Your task to perform on an android device: toggle notification dots Image 0: 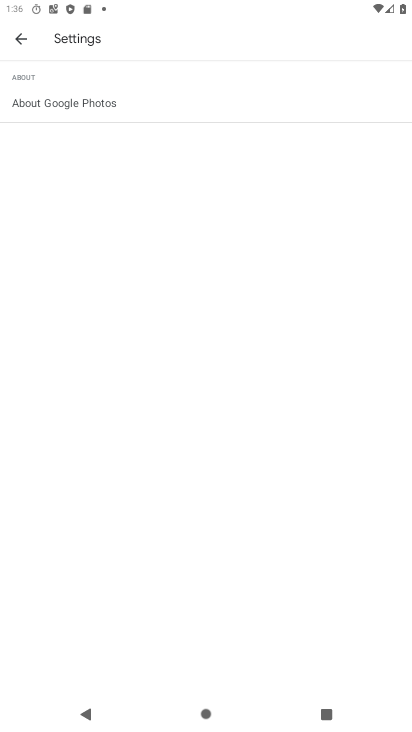
Step 0: press home button
Your task to perform on an android device: toggle notification dots Image 1: 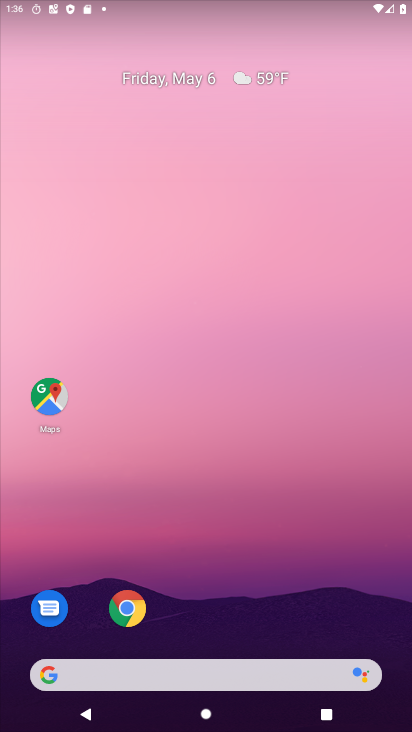
Step 1: drag from (212, 621) to (231, 321)
Your task to perform on an android device: toggle notification dots Image 2: 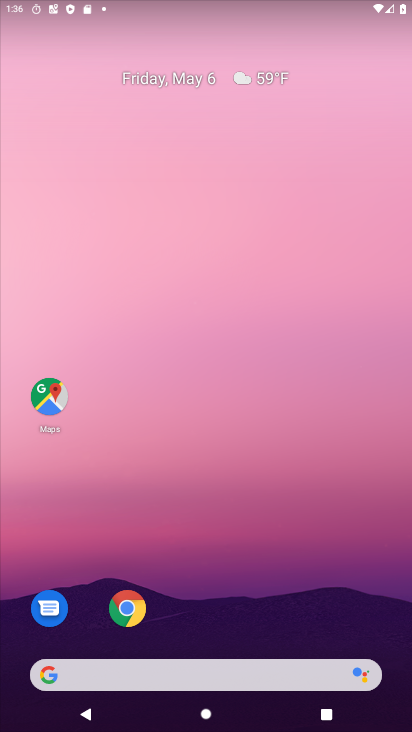
Step 2: drag from (194, 635) to (276, 177)
Your task to perform on an android device: toggle notification dots Image 3: 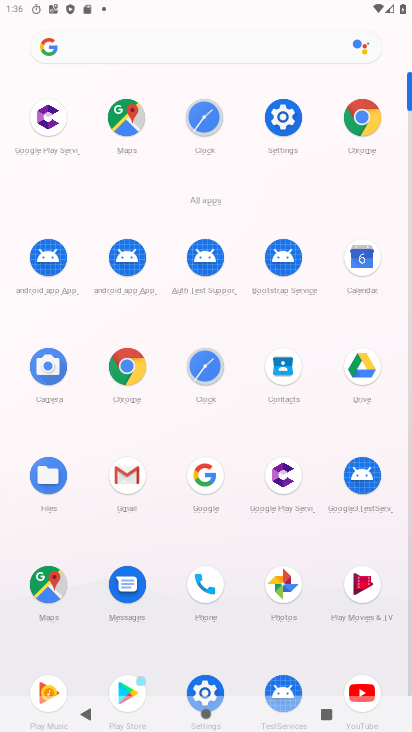
Step 3: drag from (222, 646) to (240, 305)
Your task to perform on an android device: toggle notification dots Image 4: 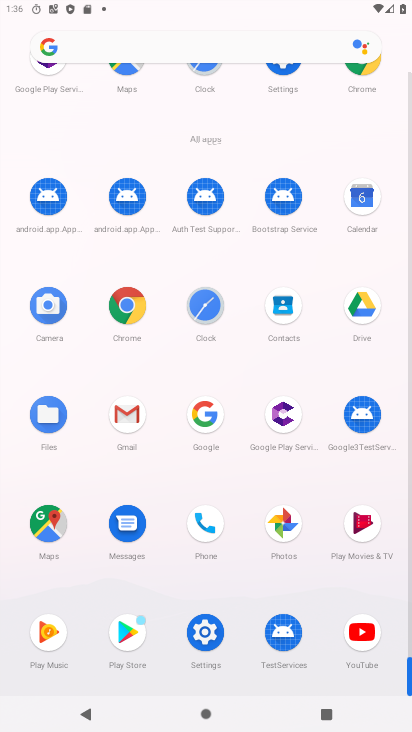
Step 4: click (208, 631)
Your task to perform on an android device: toggle notification dots Image 5: 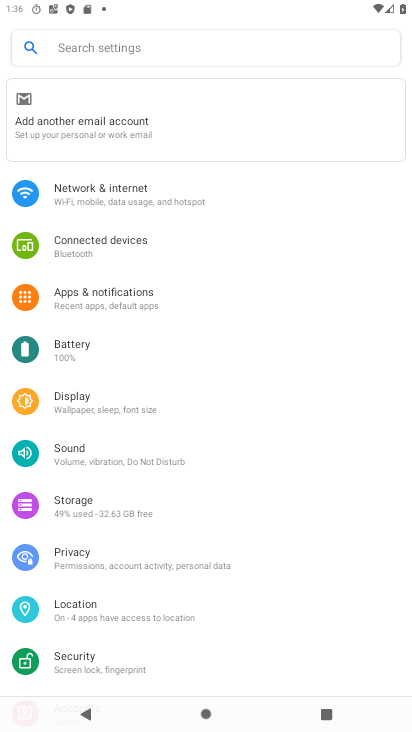
Step 5: click (125, 307)
Your task to perform on an android device: toggle notification dots Image 6: 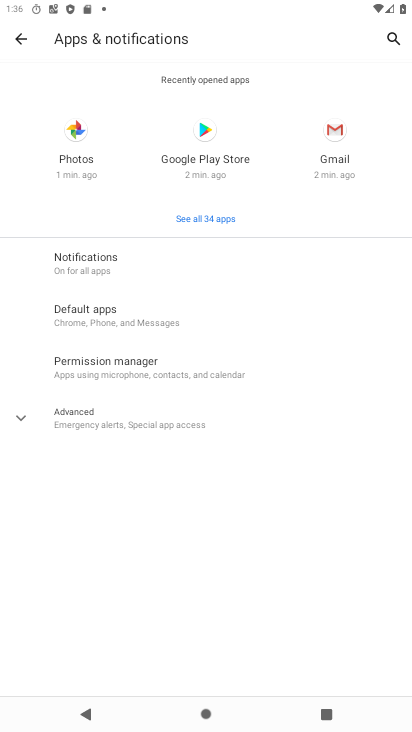
Step 6: click (89, 269)
Your task to perform on an android device: toggle notification dots Image 7: 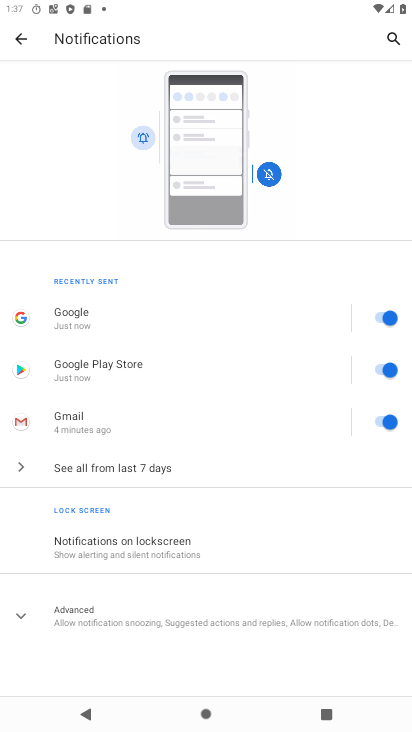
Step 7: click (15, 624)
Your task to perform on an android device: toggle notification dots Image 8: 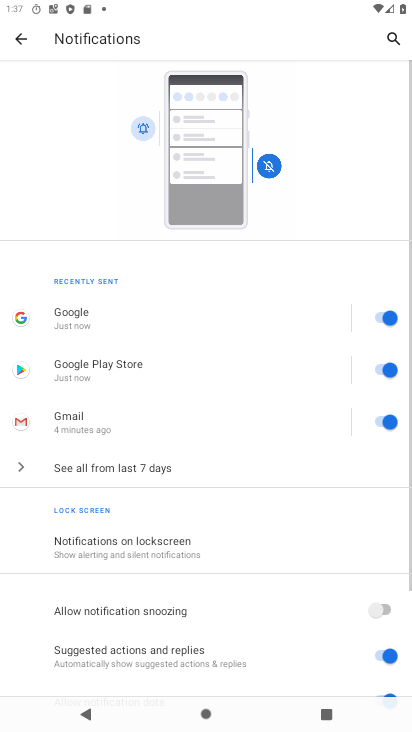
Step 8: drag from (90, 606) to (171, 200)
Your task to perform on an android device: toggle notification dots Image 9: 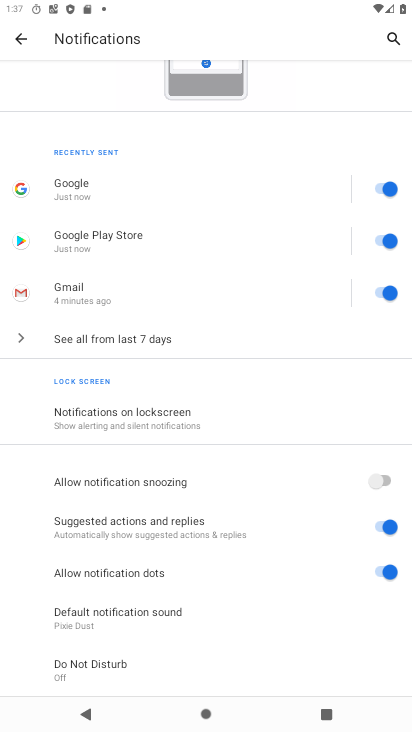
Step 9: click (384, 574)
Your task to perform on an android device: toggle notification dots Image 10: 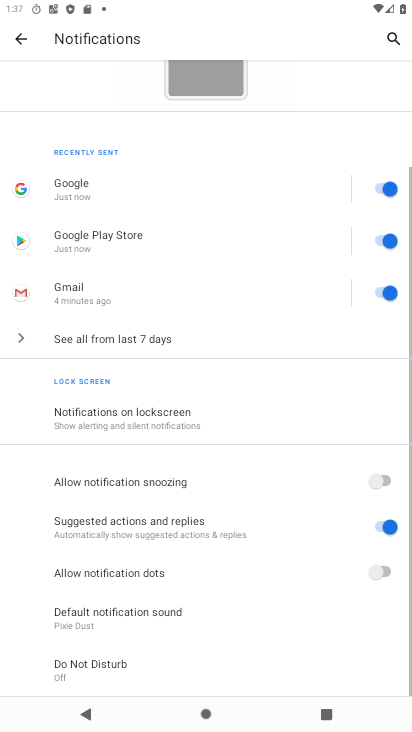
Step 10: task complete